Your task to perform on an android device: delete a single message in the gmail app Image 0: 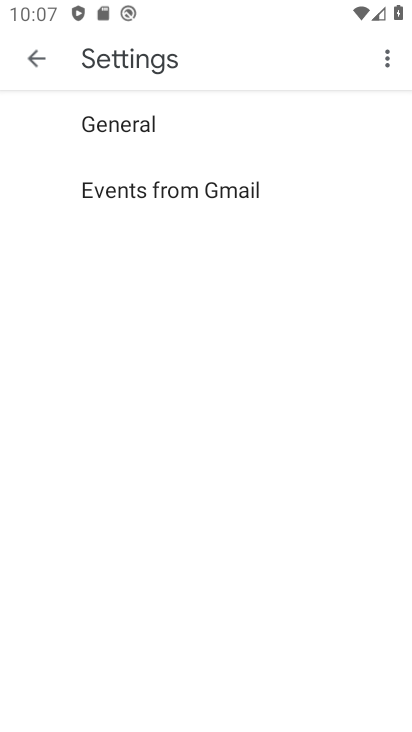
Step 0: press back button
Your task to perform on an android device: delete a single message in the gmail app Image 1: 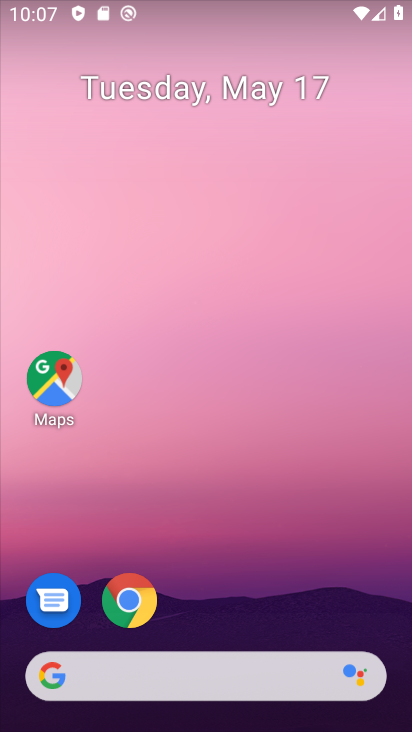
Step 1: drag from (230, 559) to (292, 16)
Your task to perform on an android device: delete a single message in the gmail app Image 2: 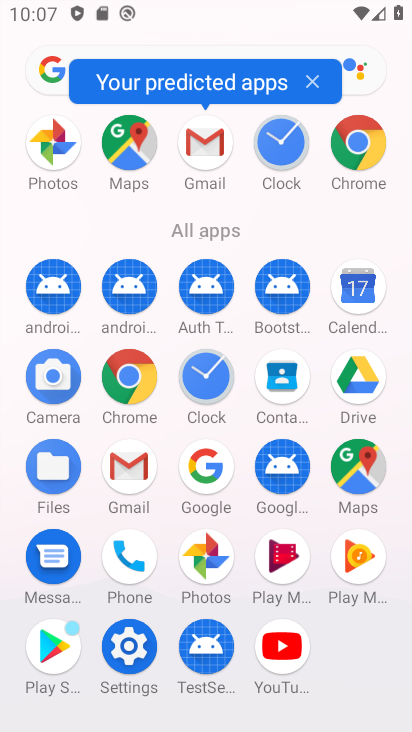
Step 2: click (202, 152)
Your task to perform on an android device: delete a single message in the gmail app Image 3: 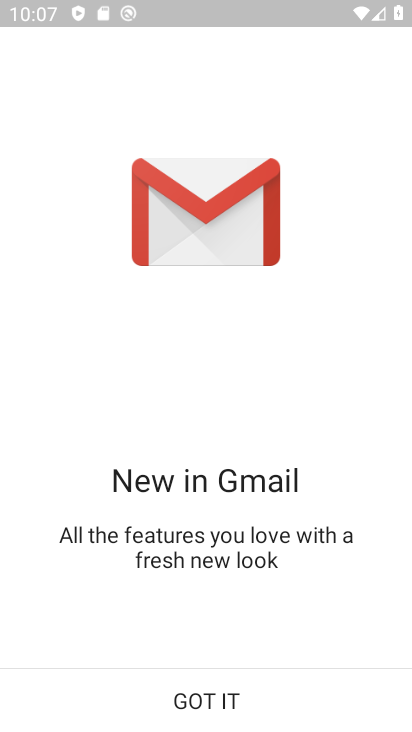
Step 3: click (175, 697)
Your task to perform on an android device: delete a single message in the gmail app Image 4: 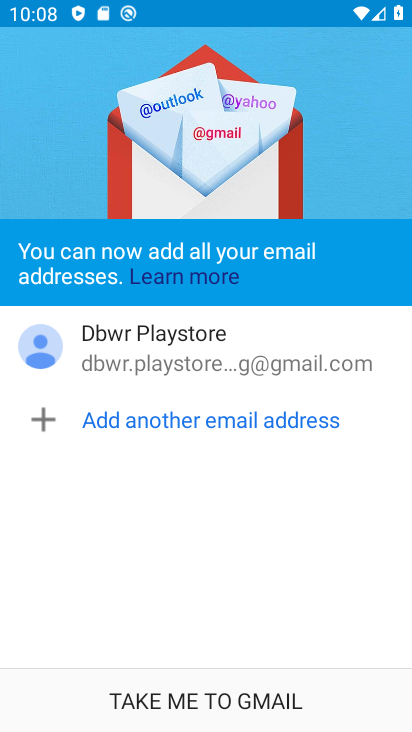
Step 4: click (185, 692)
Your task to perform on an android device: delete a single message in the gmail app Image 5: 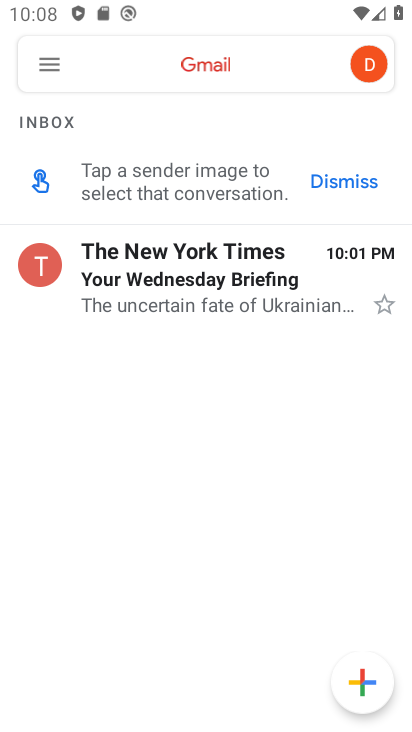
Step 5: click (42, 69)
Your task to perform on an android device: delete a single message in the gmail app Image 6: 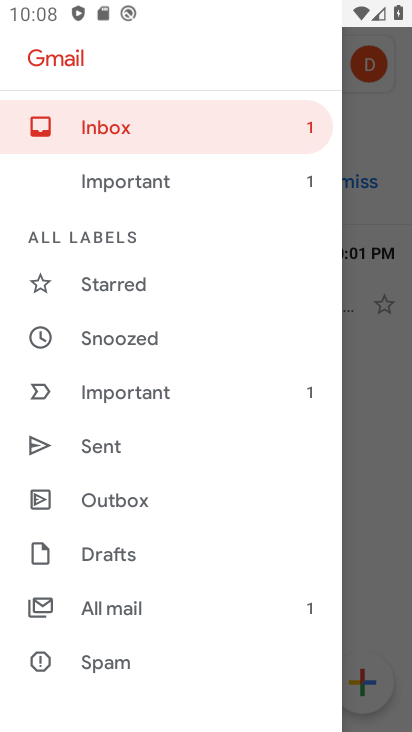
Step 6: click (123, 607)
Your task to perform on an android device: delete a single message in the gmail app Image 7: 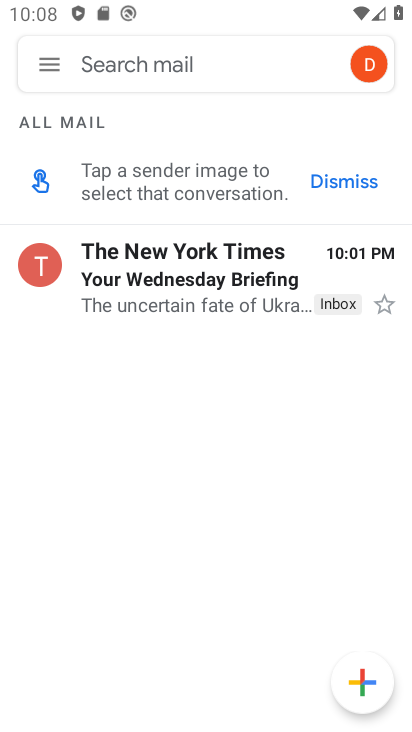
Step 7: click (181, 277)
Your task to perform on an android device: delete a single message in the gmail app Image 8: 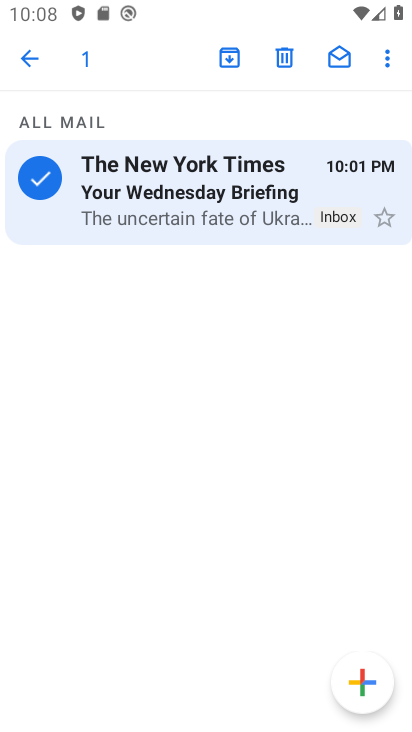
Step 8: click (282, 63)
Your task to perform on an android device: delete a single message in the gmail app Image 9: 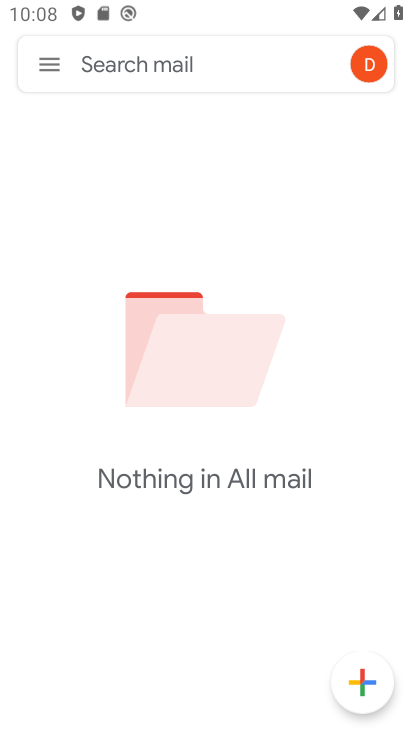
Step 9: task complete